Your task to perform on an android device: Open Maps and search for coffee Image 0: 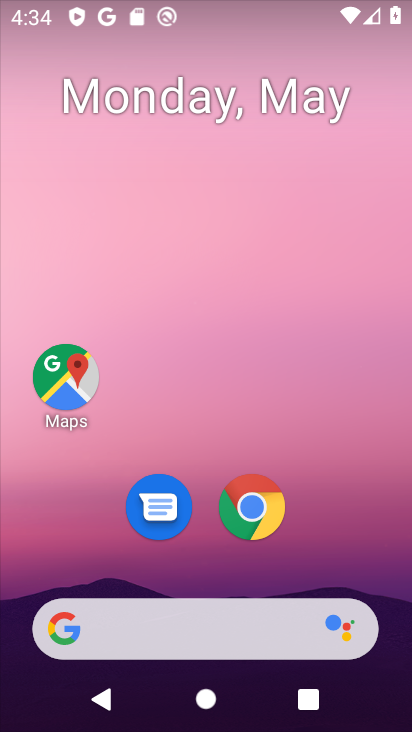
Step 0: drag from (354, 506) to (396, 0)
Your task to perform on an android device: Open Maps and search for coffee Image 1: 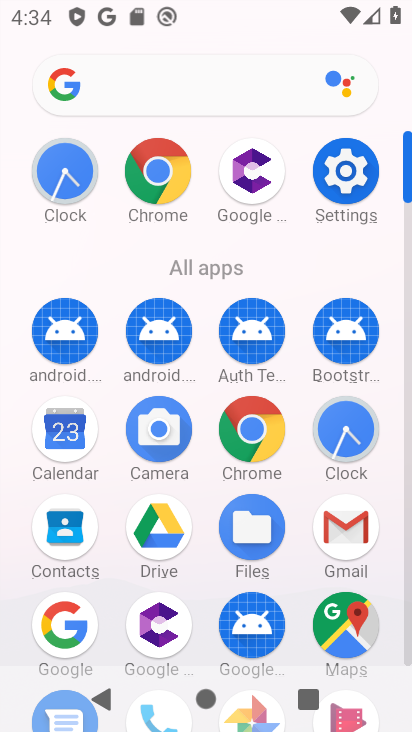
Step 1: click (339, 651)
Your task to perform on an android device: Open Maps and search for coffee Image 2: 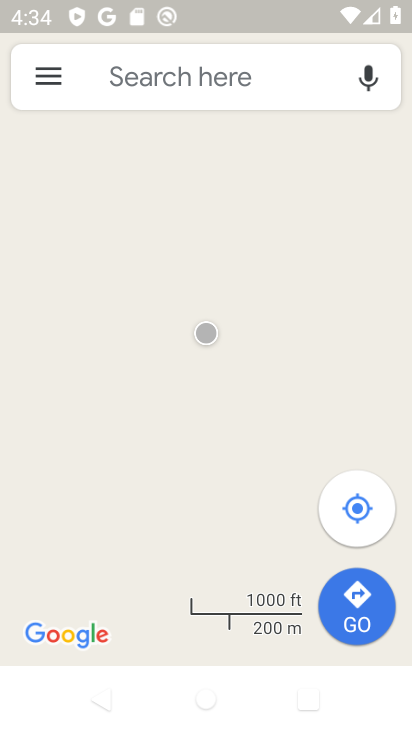
Step 2: click (272, 81)
Your task to perform on an android device: Open Maps and search for coffee Image 3: 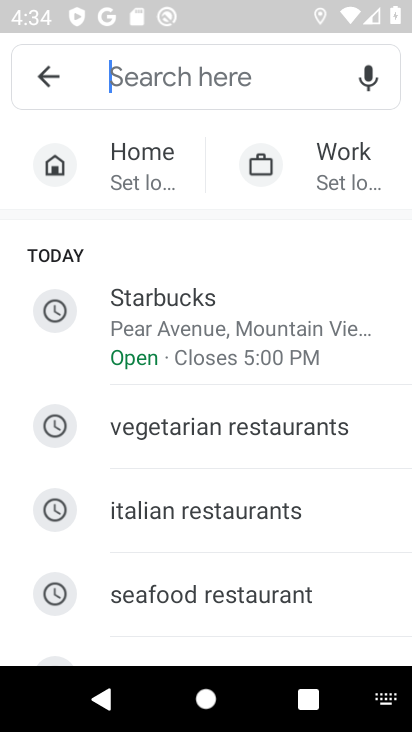
Step 3: type "coffee"
Your task to perform on an android device: Open Maps and search for coffee Image 4: 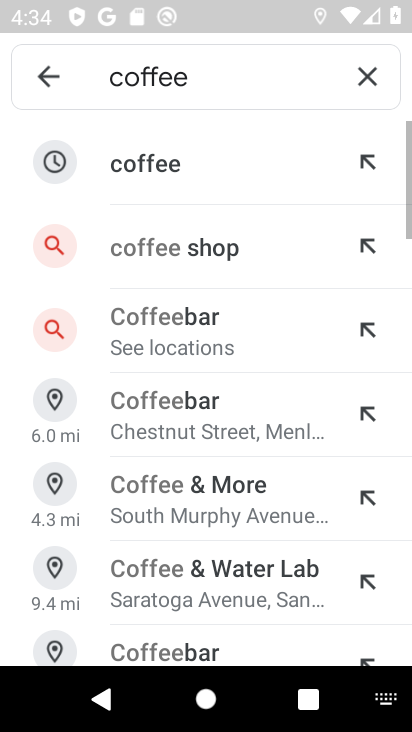
Step 4: click (148, 146)
Your task to perform on an android device: Open Maps and search for coffee Image 5: 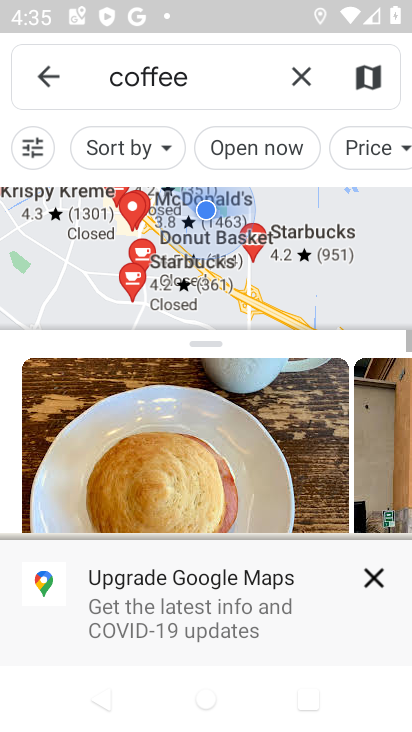
Step 5: task complete